Your task to perform on an android device: Go to Android settings Image 0: 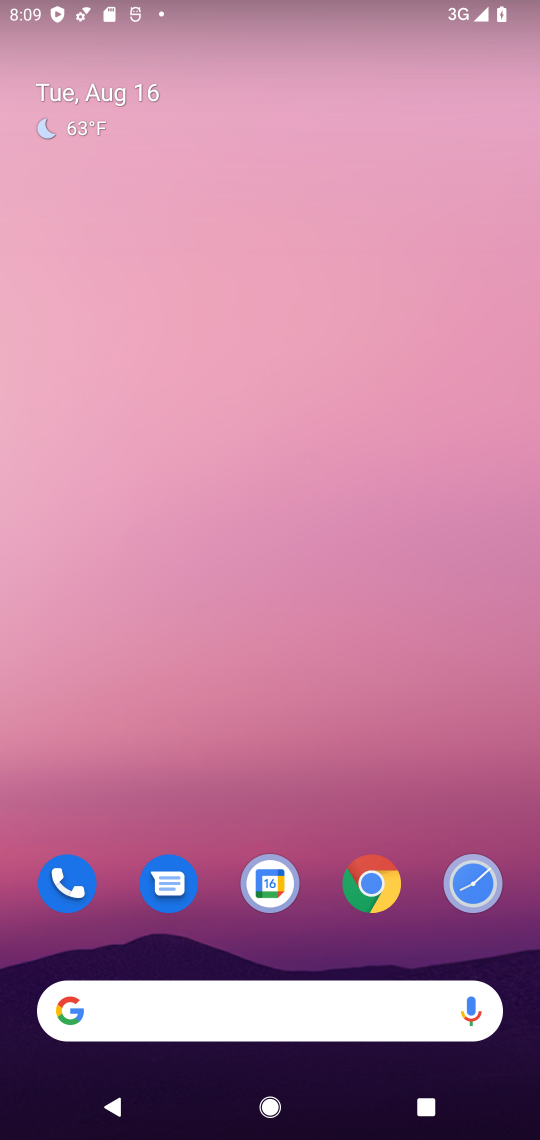
Step 0: drag from (447, 673) to (430, 42)
Your task to perform on an android device: Go to Android settings Image 1: 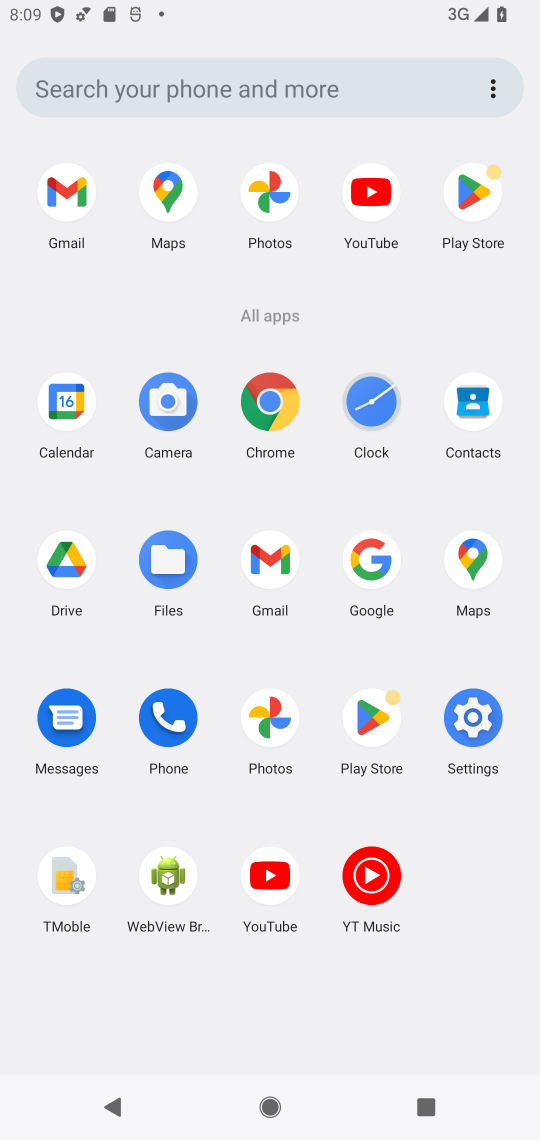
Step 1: click (467, 742)
Your task to perform on an android device: Go to Android settings Image 2: 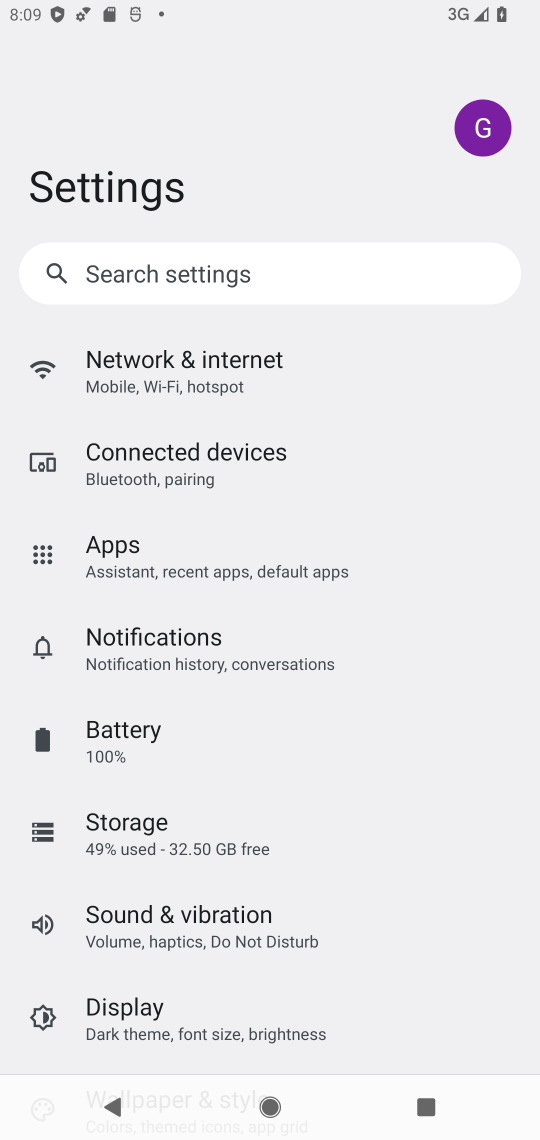
Step 2: task complete